Your task to perform on an android device: empty trash in the gmail app Image 0: 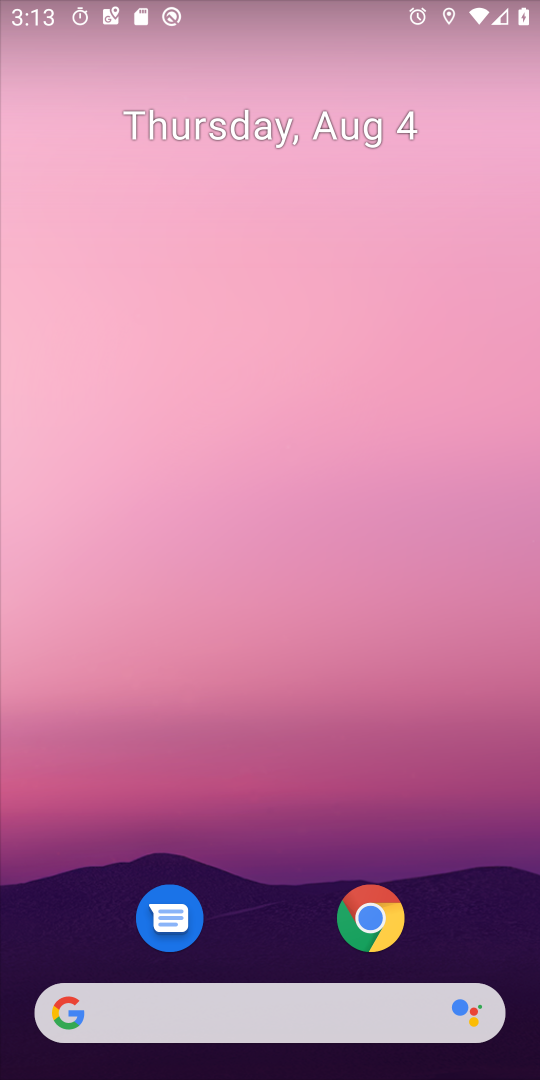
Step 0: drag from (266, 915) to (312, 221)
Your task to perform on an android device: empty trash in the gmail app Image 1: 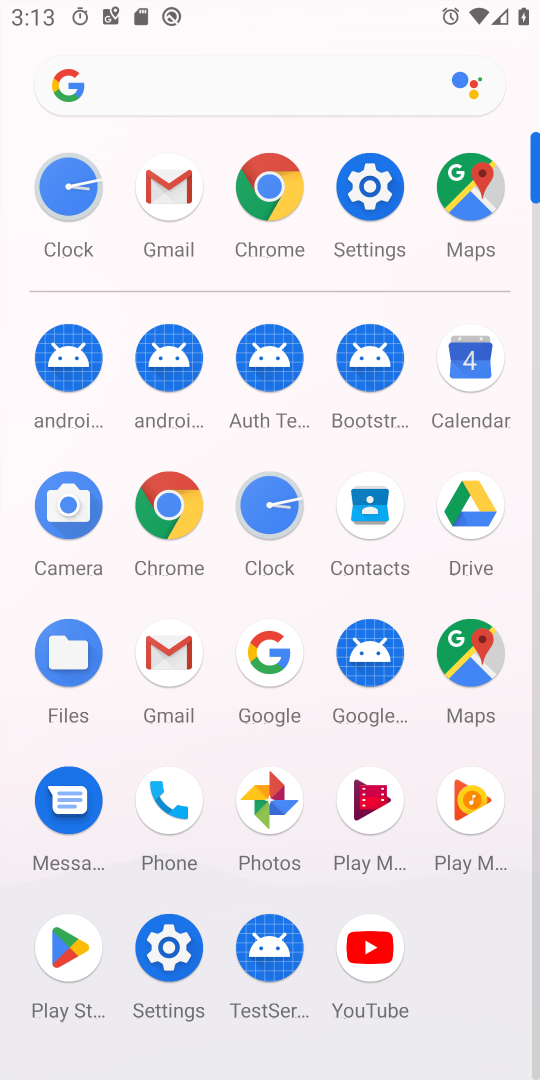
Step 1: click (164, 184)
Your task to perform on an android device: empty trash in the gmail app Image 2: 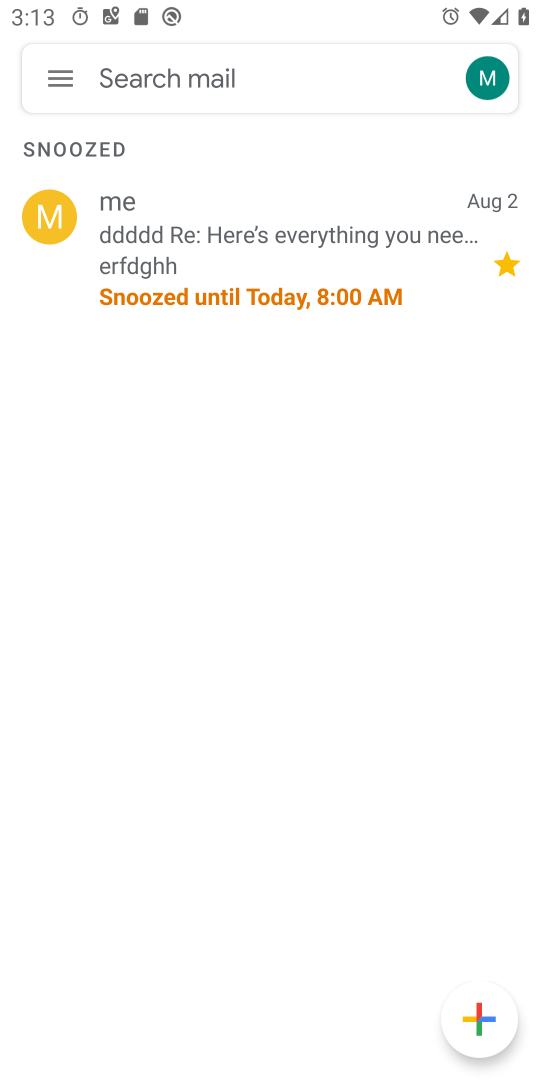
Step 2: click (57, 86)
Your task to perform on an android device: empty trash in the gmail app Image 3: 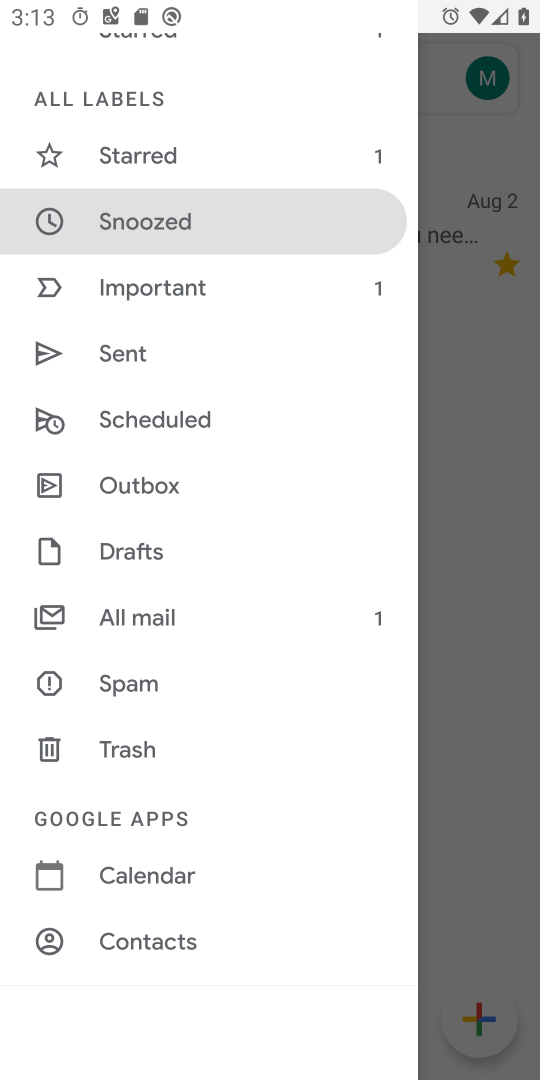
Step 3: click (162, 761)
Your task to perform on an android device: empty trash in the gmail app Image 4: 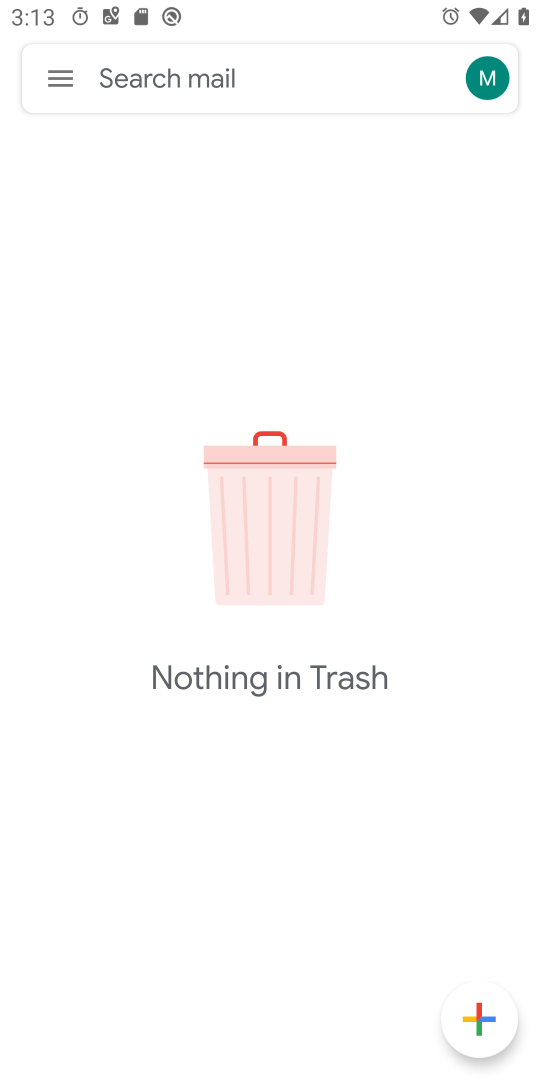
Step 4: task complete